Your task to perform on an android device: Go to Maps Image 0: 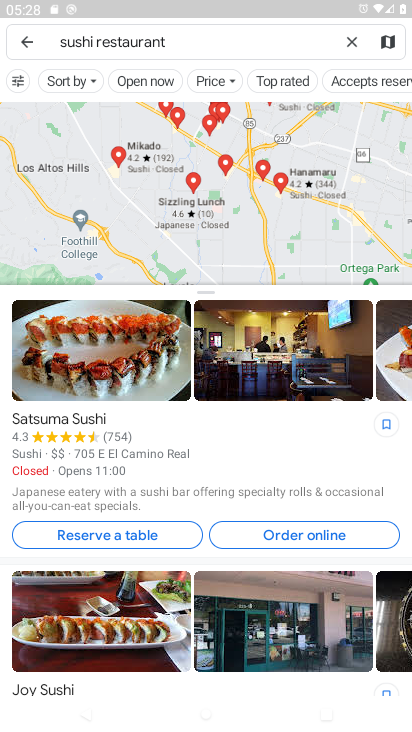
Step 0: press back button
Your task to perform on an android device: Go to Maps Image 1: 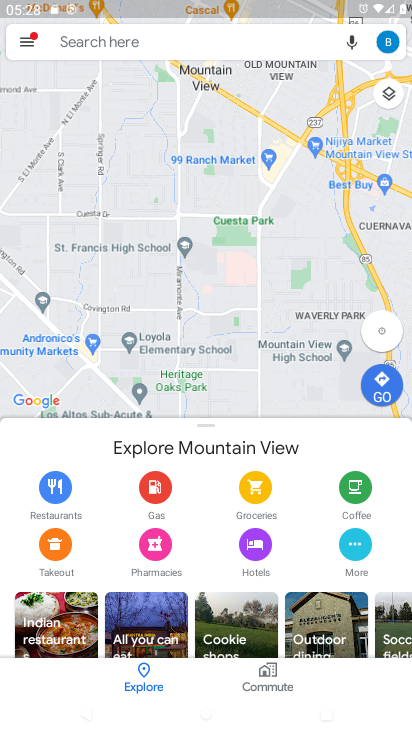
Step 1: task complete